Your task to perform on an android device: Open Google Chrome and click the shortcut for Amazon.com Image 0: 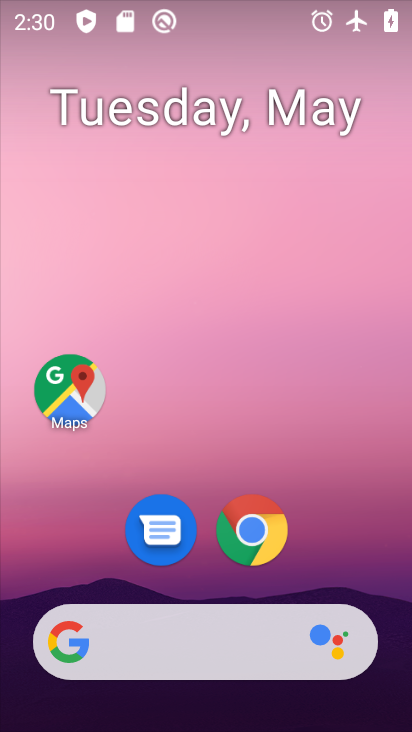
Step 0: click (237, 540)
Your task to perform on an android device: Open Google Chrome and click the shortcut for Amazon.com Image 1: 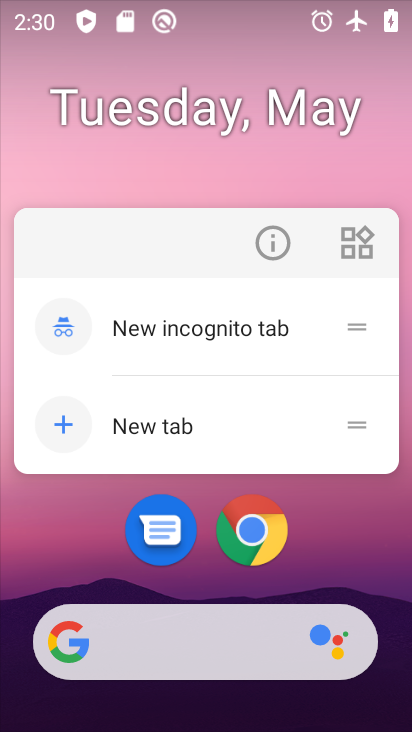
Step 1: click (243, 546)
Your task to perform on an android device: Open Google Chrome and click the shortcut for Amazon.com Image 2: 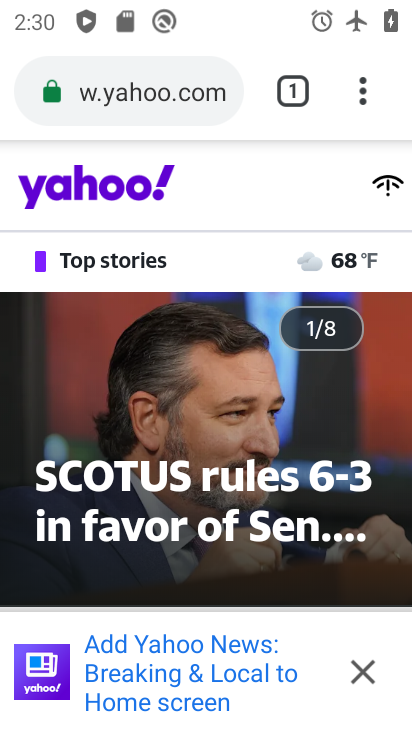
Step 2: click (300, 93)
Your task to perform on an android device: Open Google Chrome and click the shortcut for Amazon.com Image 3: 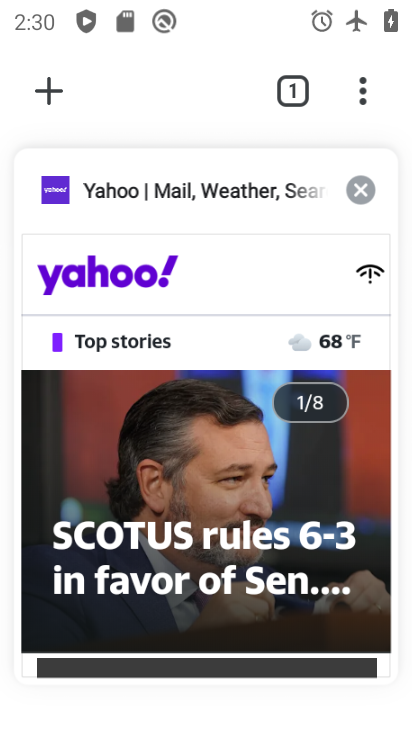
Step 3: click (58, 88)
Your task to perform on an android device: Open Google Chrome and click the shortcut for Amazon.com Image 4: 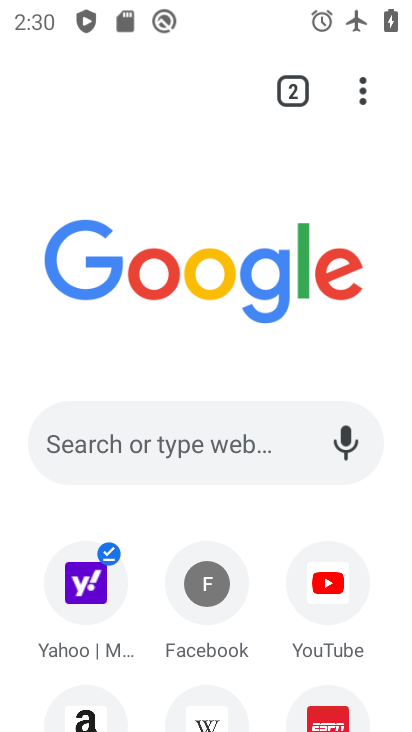
Step 4: click (93, 707)
Your task to perform on an android device: Open Google Chrome and click the shortcut for Amazon.com Image 5: 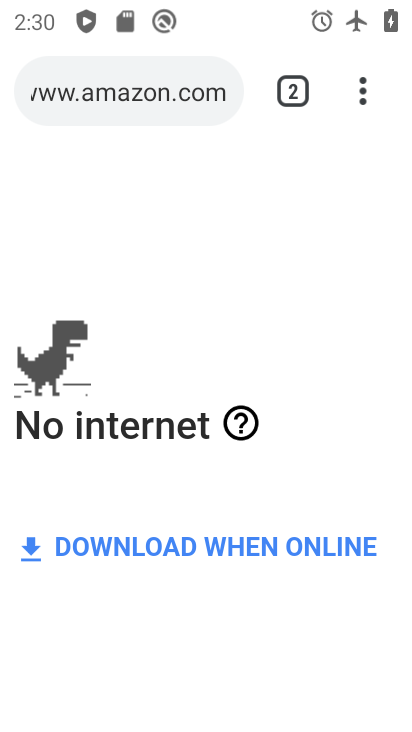
Step 5: task complete